Your task to perform on an android device: Open battery settings Image 0: 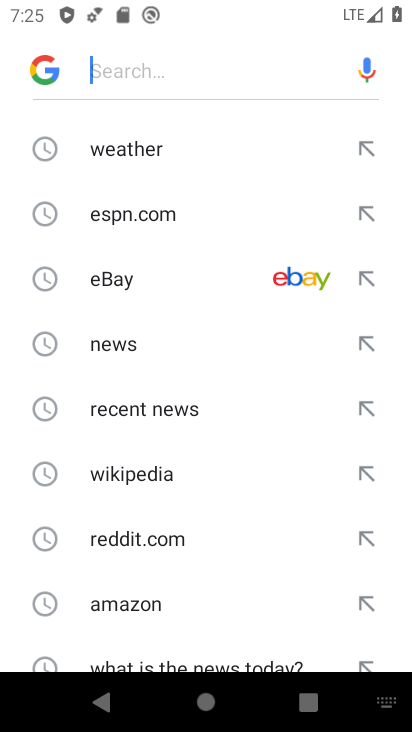
Step 0: press back button
Your task to perform on an android device: Open battery settings Image 1: 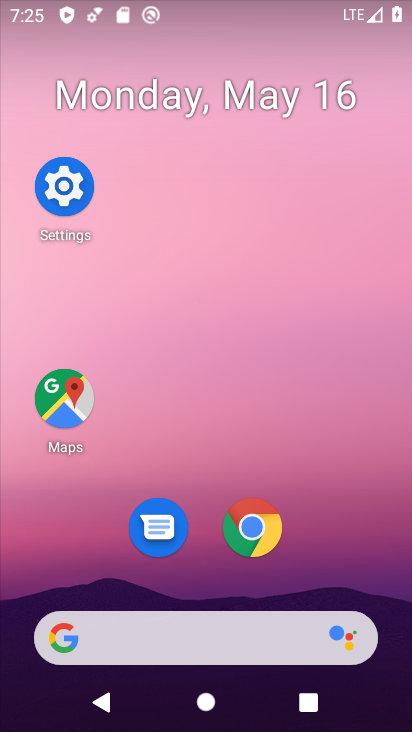
Step 1: click (72, 197)
Your task to perform on an android device: Open battery settings Image 2: 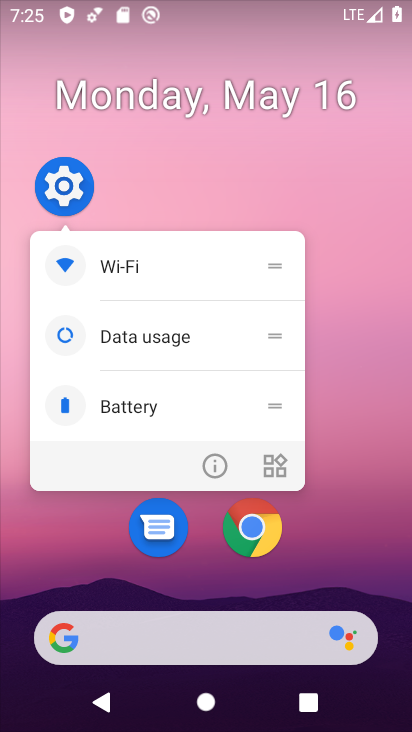
Step 2: click (72, 197)
Your task to perform on an android device: Open battery settings Image 3: 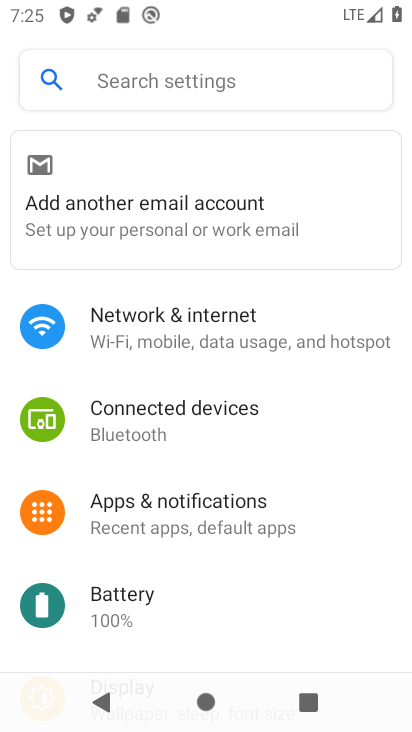
Step 3: click (227, 613)
Your task to perform on an android device: Open battery settings Image 4: 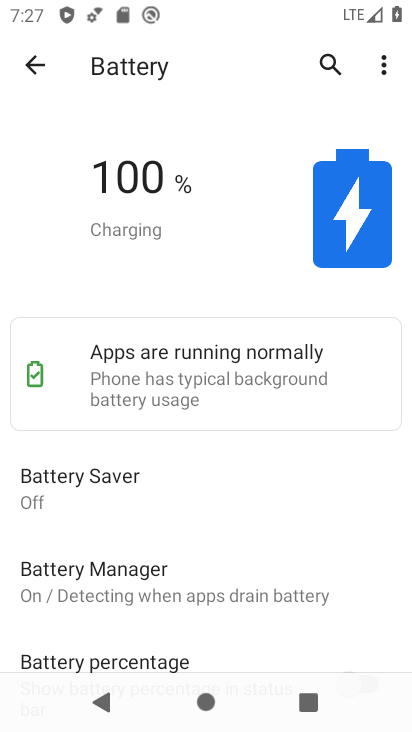
Step 4: task complete